Your task to perform on an android device: Turn off the flashlight Image 0: 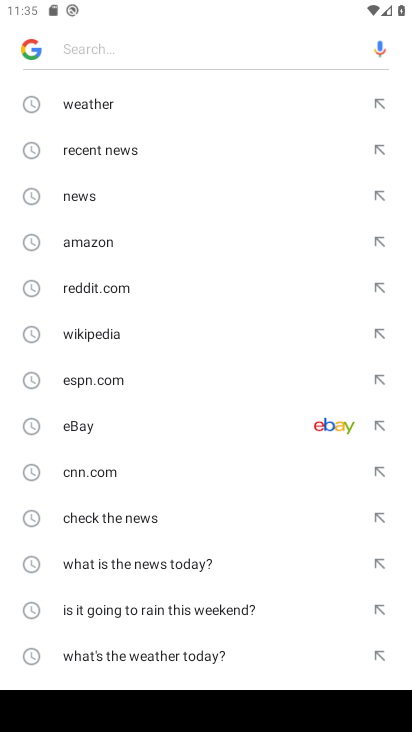
Step 0: press home button
Your task to perform on an android device: Turn off the flashlight Image 1: 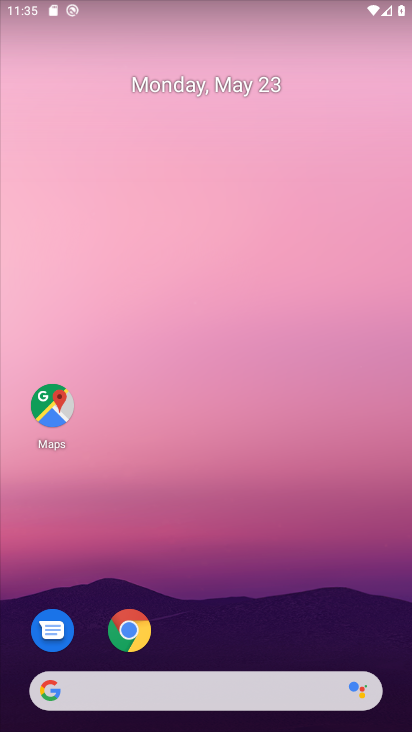
Step 1: drag from (215, 84) to (187, 7)
Your task to perform on an android device: Turn off the flashlight Image 2: 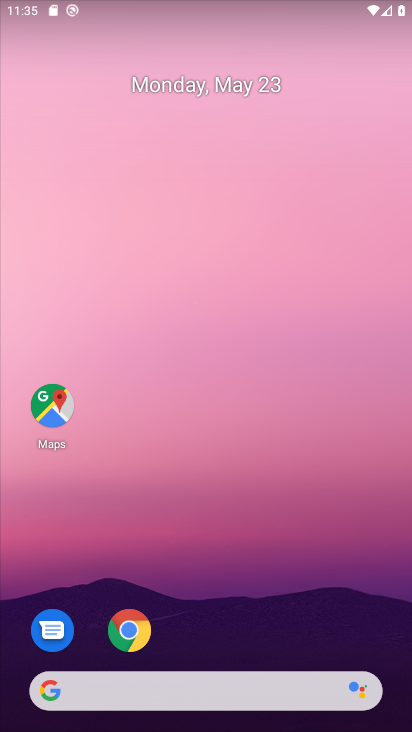
Step 2: drag from (198, 638) to (208, 44)
Your task to perform on an android device: Turn off the flashlight Image 3: 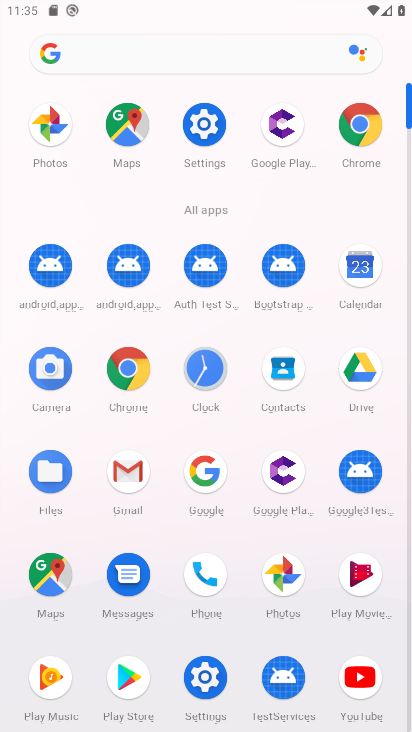
Step 3: click (199, 128)
Your task to perform on an android device: Turn off the flashlight Image 4: 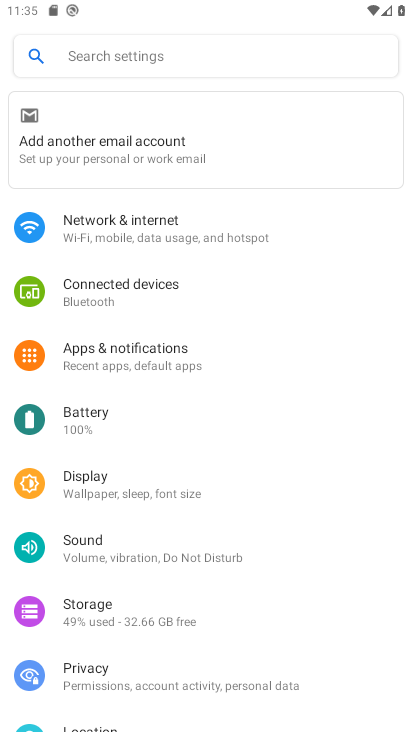
Step 4: click (235, 60)
Your task to perform on an android device: Turn off the flashlight Image 5: 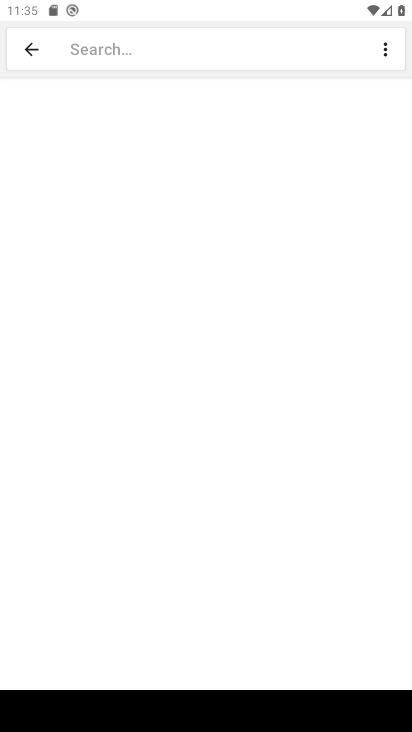
Step 5: type "flashlight"
Your task to perform on an android device: Turn off the flashlight Image 6: 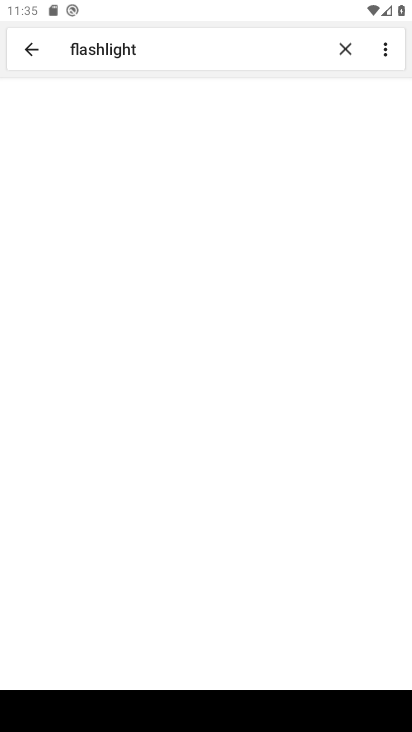
Step 6: click (153, 125)
Your task to perform on an android device: Turn off the flashlight Image 7: 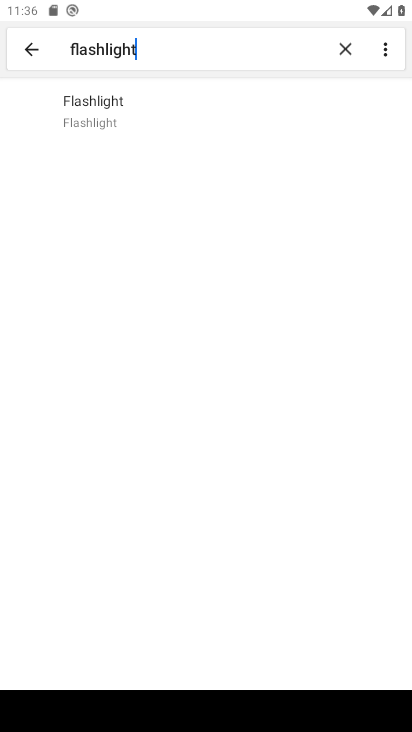
Step 7: click (140, 116)
Your task to perform on an android device: Turn off the flashlight Image 8: 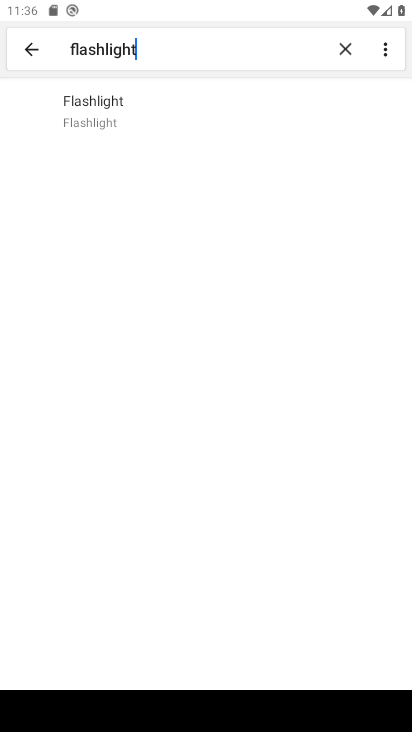
Step 8: click (139, 109)
Your task to perform on an android device: Turn off the flashlight Image 9: 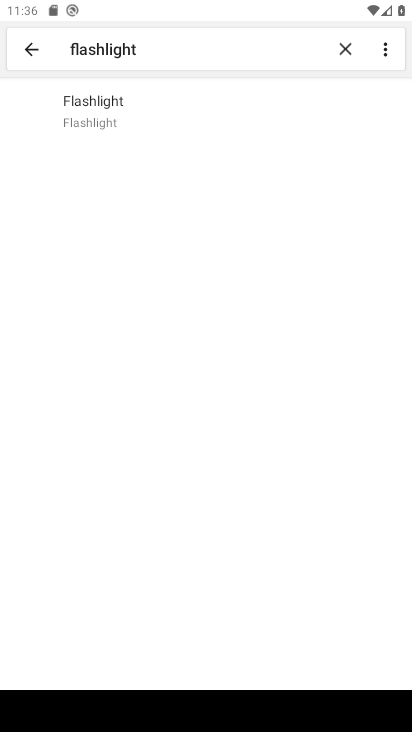
Step 9: task complete